Your task to perform on an android device: Show me productivity apps on the Play Store Image 0: 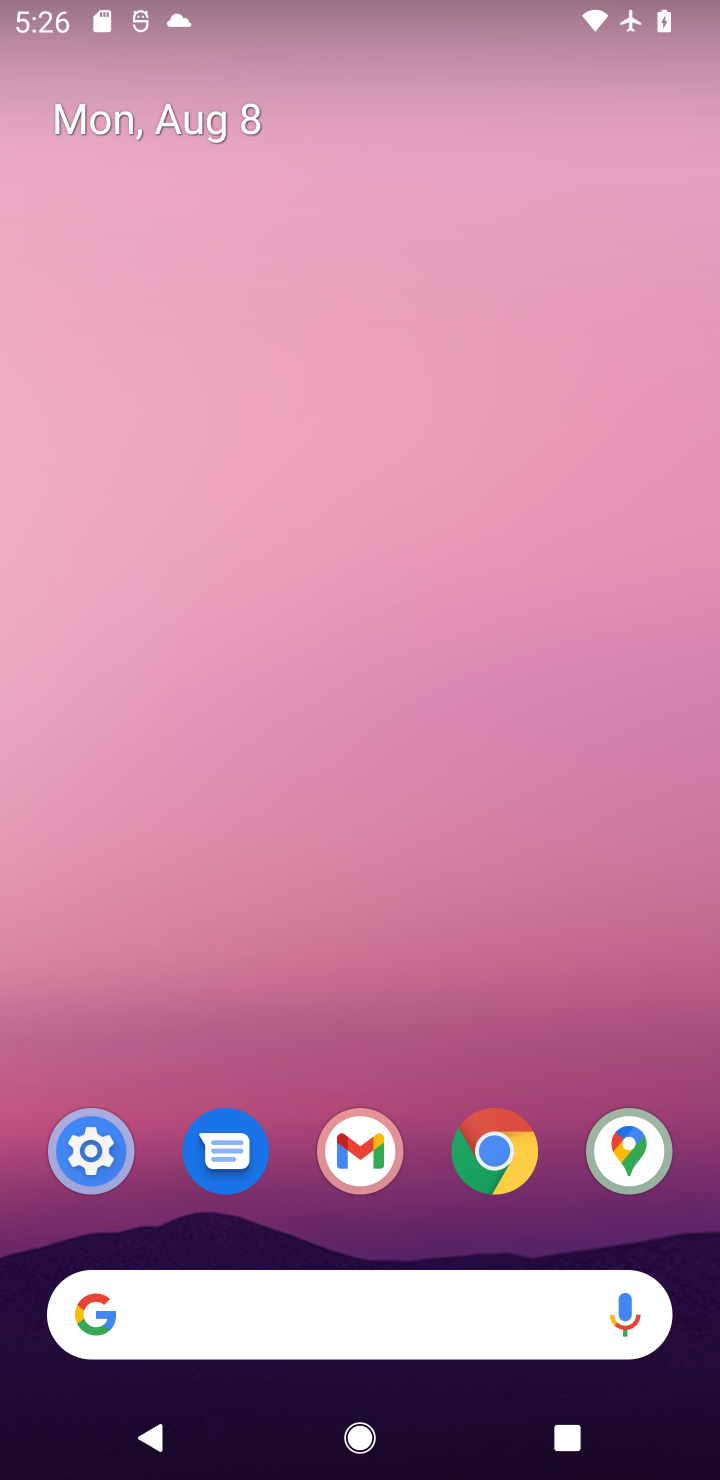
Step 0: drag from (357, 1045) to (292, 158)
Your task to perform on an android device: Show me productivity apps on the Play Store Image 1: 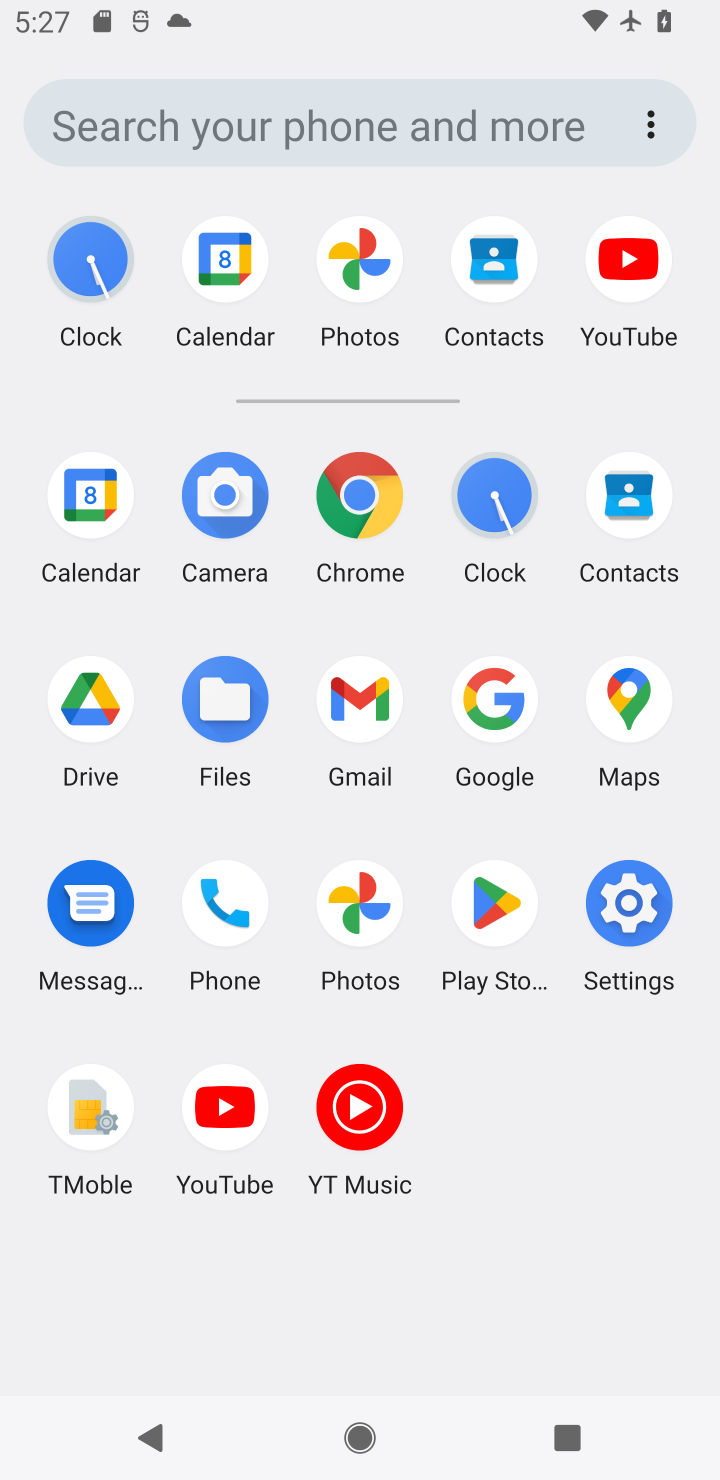
Step 1: click (508, 924)
Your task to perform on an android device: Show me productivity apps on the Play Store Image 2: 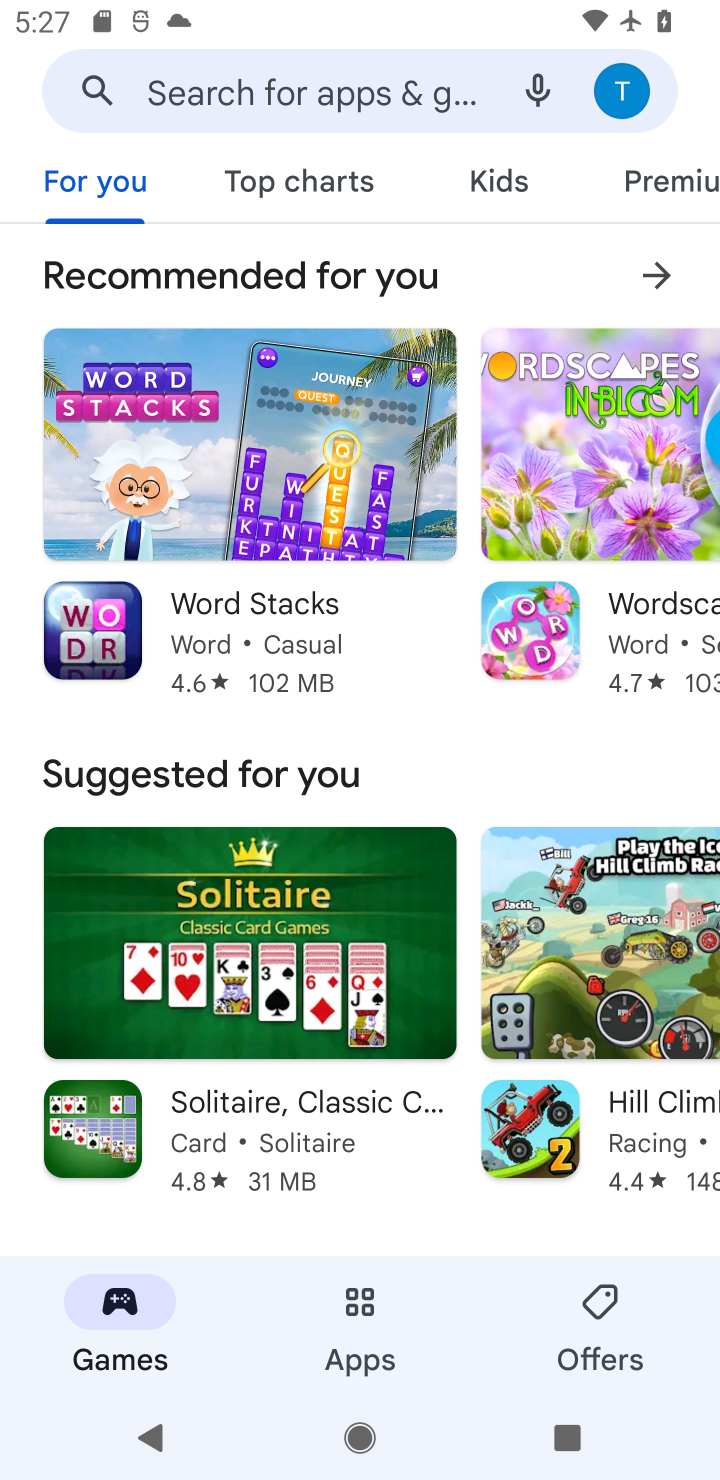
Step 2: click (333, 1326)
Your task to perform on an android device: Show me productivity apps on the Play Store Image 3: 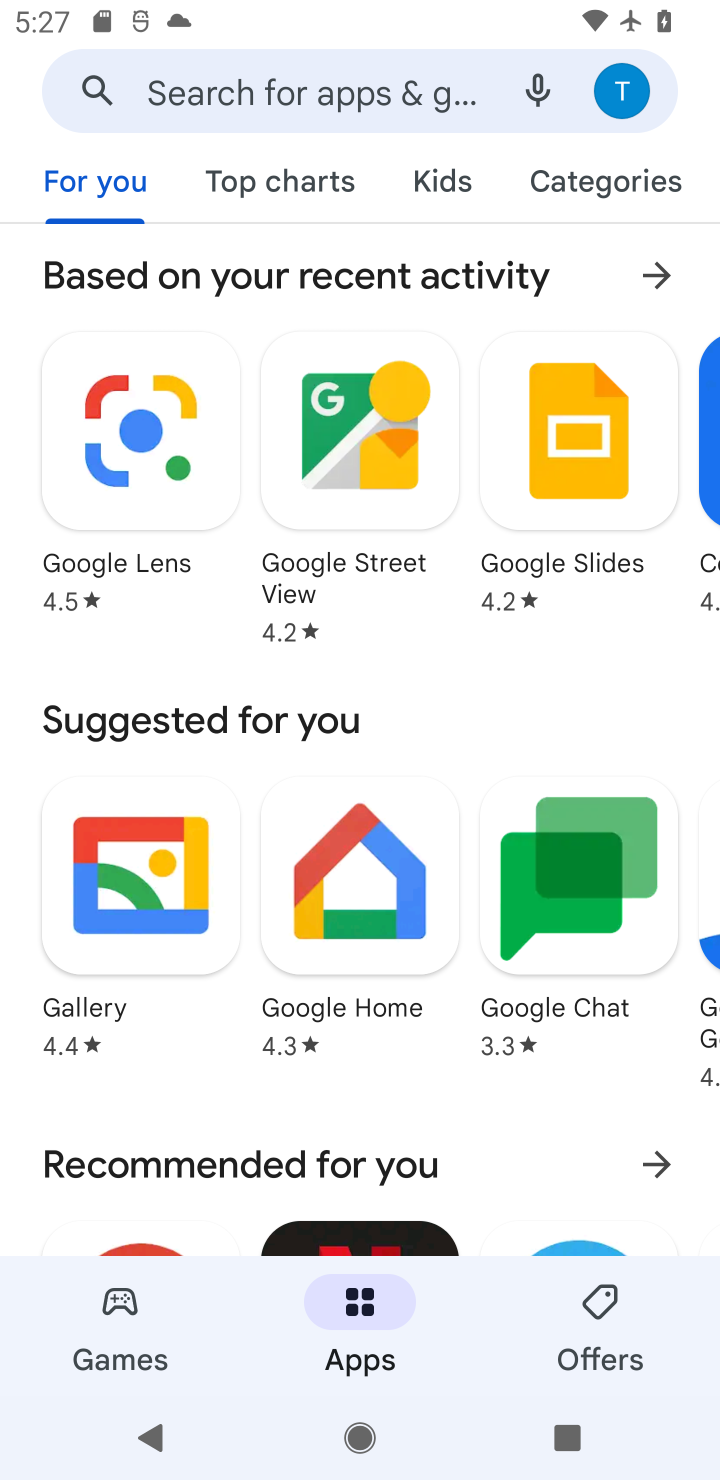
Step 3: click (573, 197)
Your task to perform on an android device: Show me productivity apps on the Play Store Image 4: 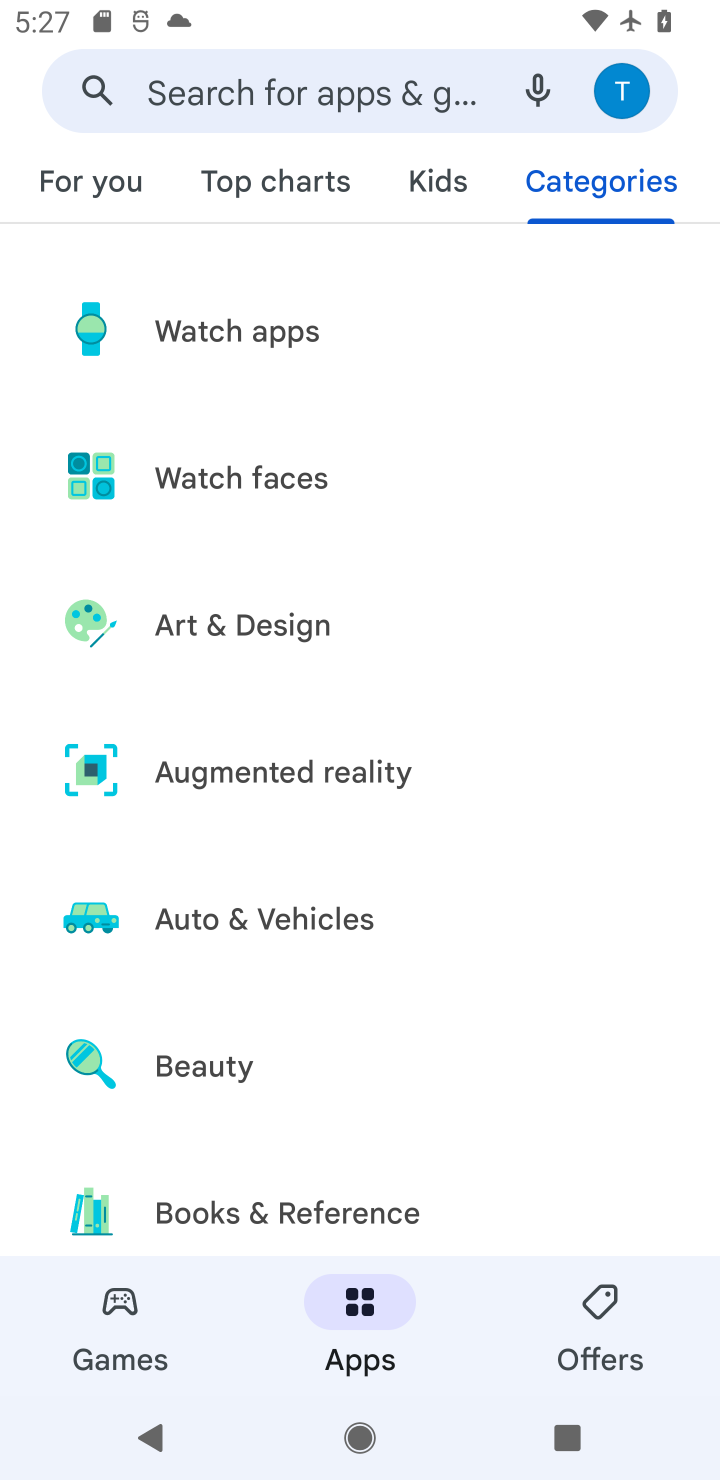
Step 4: drag from (366, 1099) to (423, 427)
Your task to perform on an android device: Show me productivity apps on the Play Store Image 5: 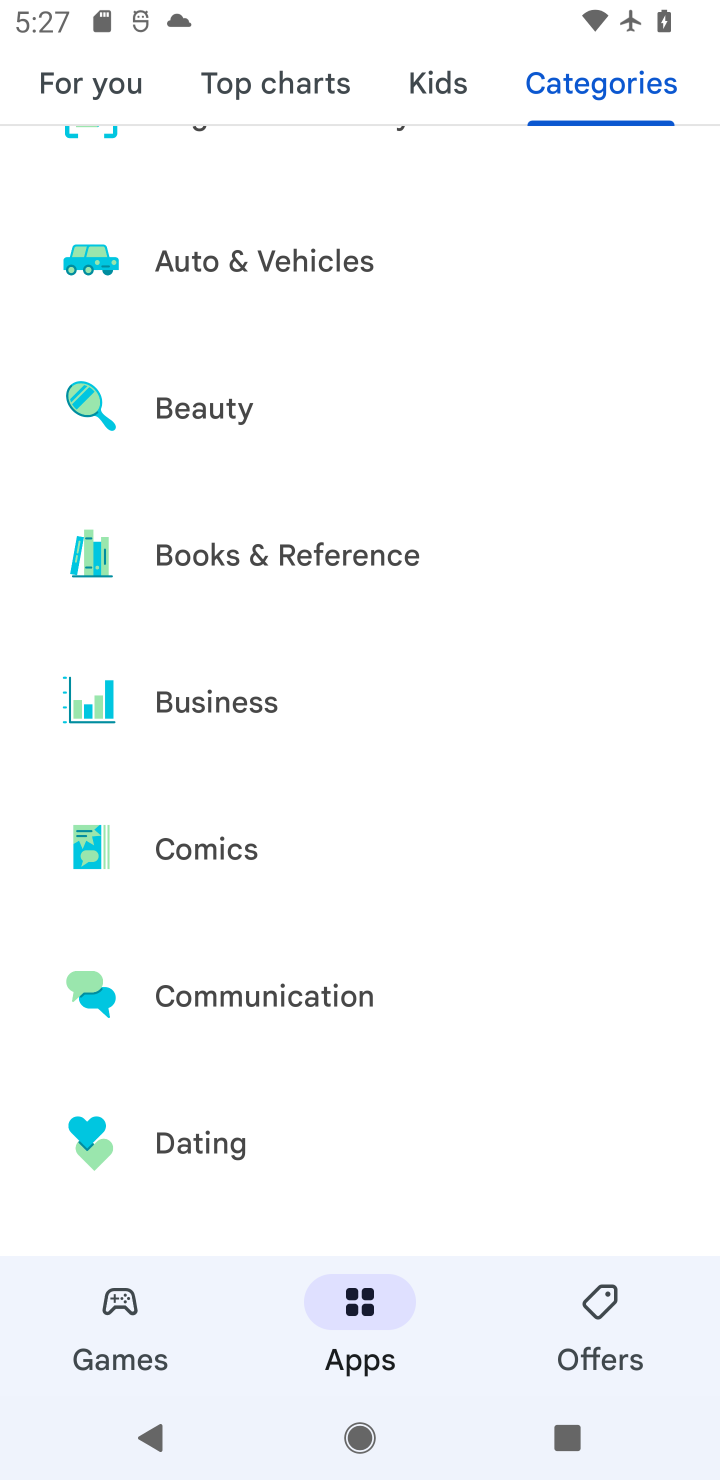
Step 5: drag from (333, 1058) to (349, 365)
Your task to perform on an android device: Show me productivity apps on the Play Store Image 6: 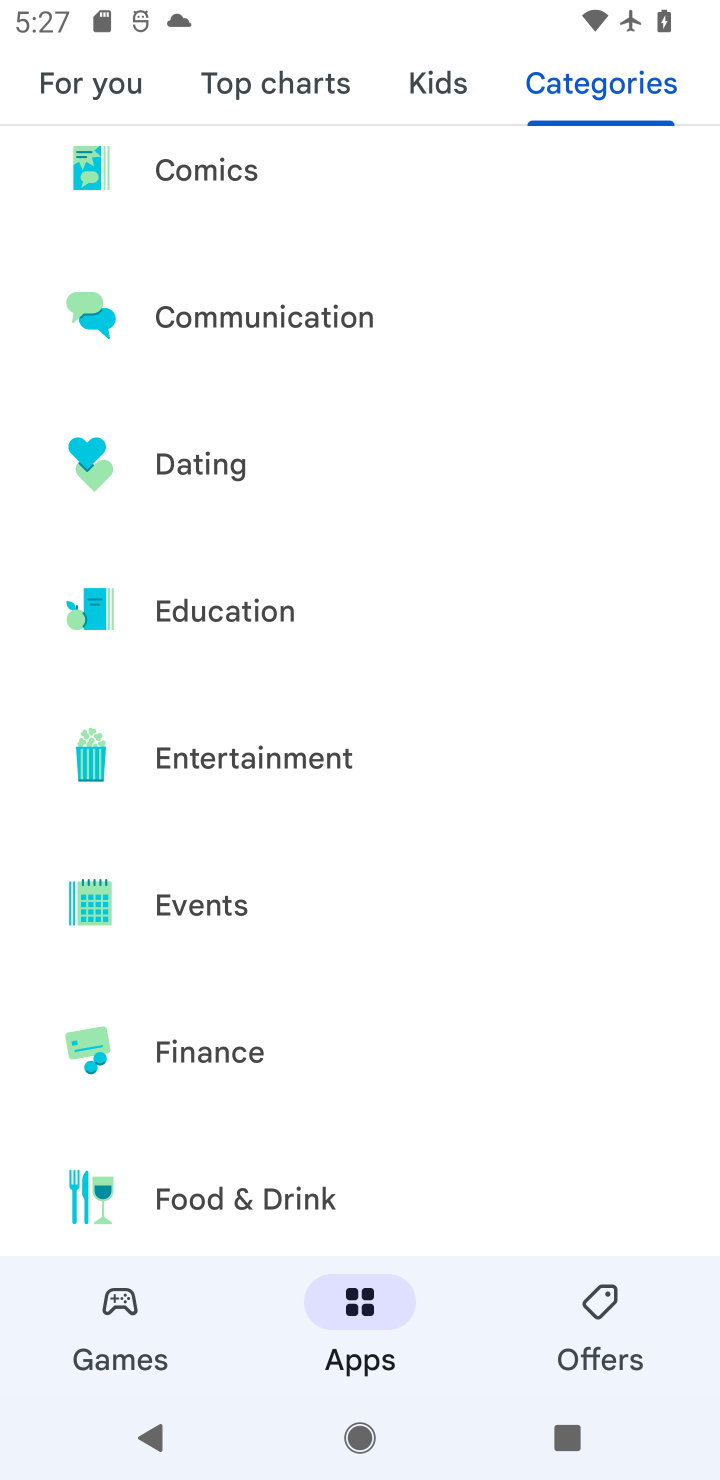
Step 6: drag from (327, 1049) to (364, 296)
Your task to perform on an android device: Show me productivity apps on the Play Store Image 7: 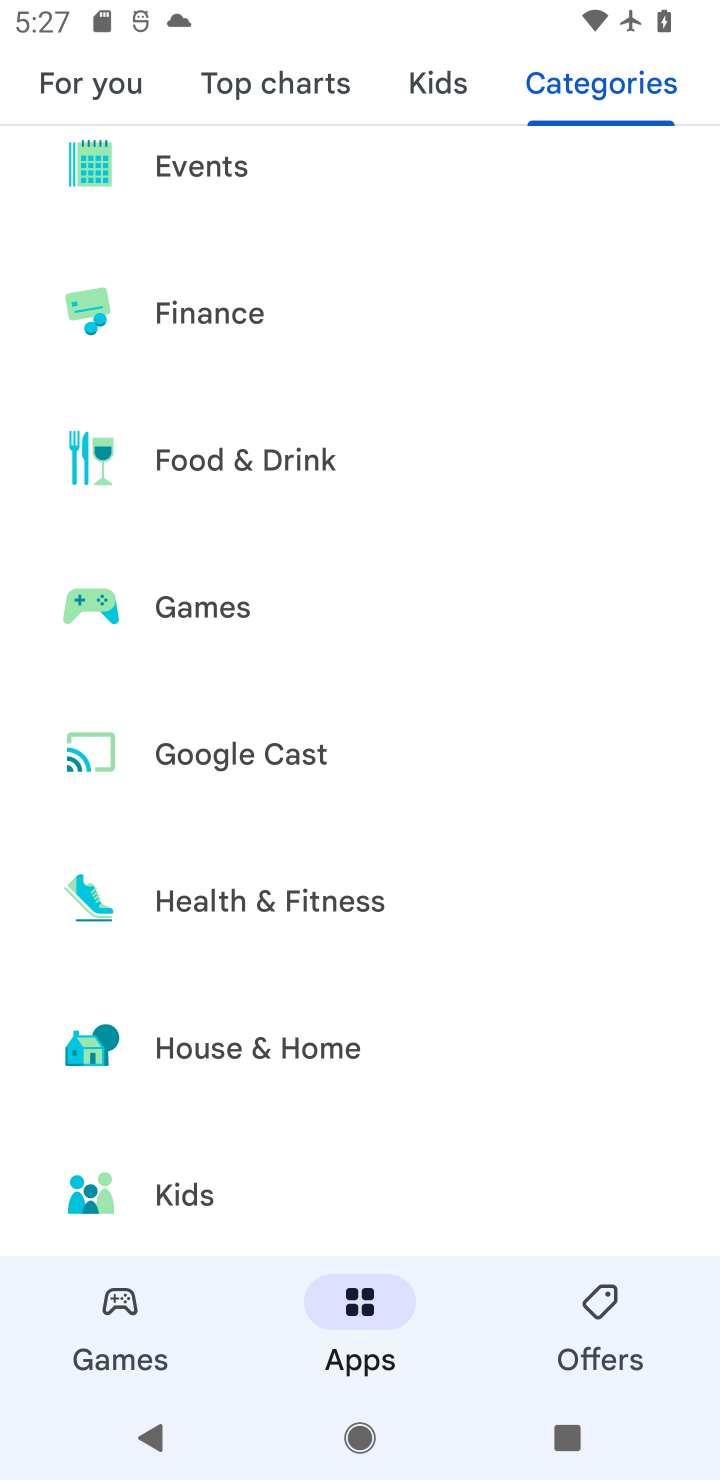
Step 7: drag from (357, 1054) to (361, 229)
Your task to perform on an android device: Show me productivity apps on the Play Store Image 8: 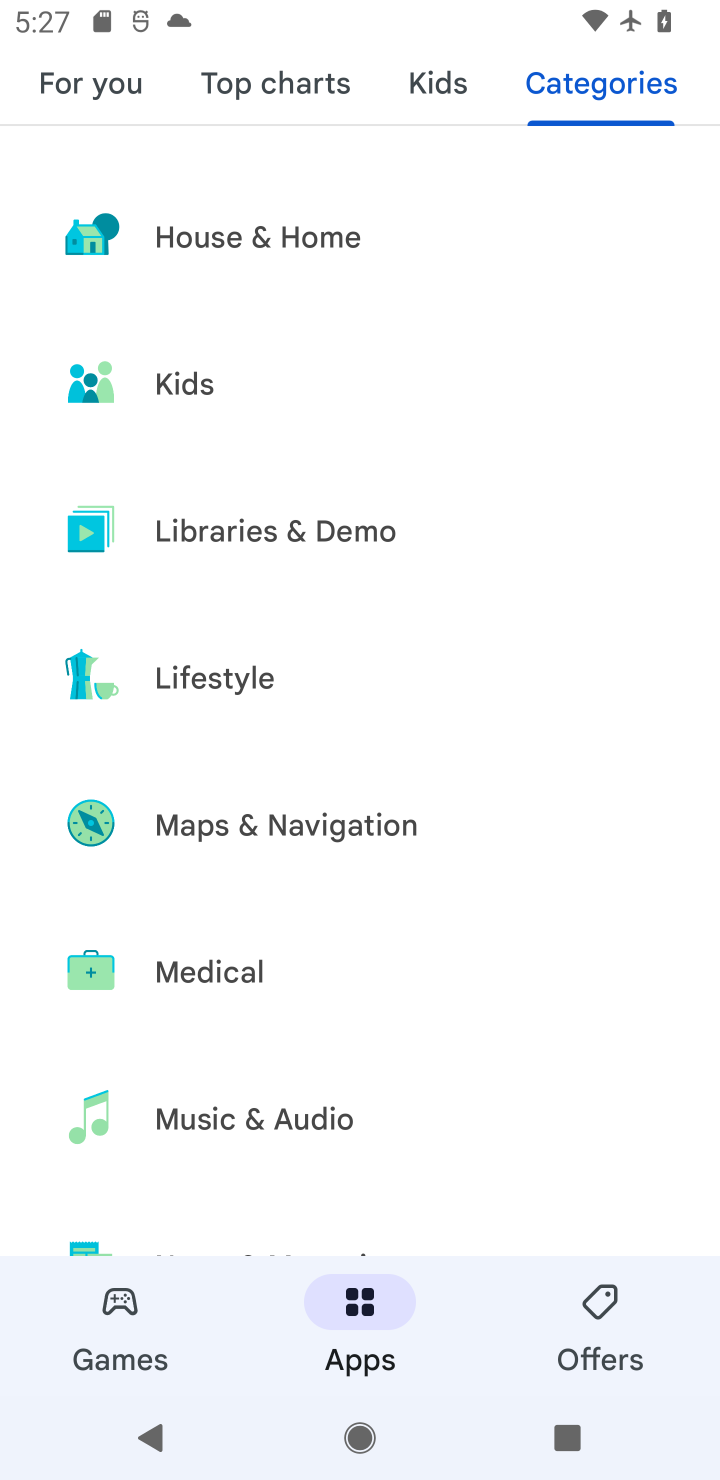
Step 8: drag from (318, 1008) to (351, 252)
Your task to perform on an android device: Show me productivity apps on the Play Store Image 9: 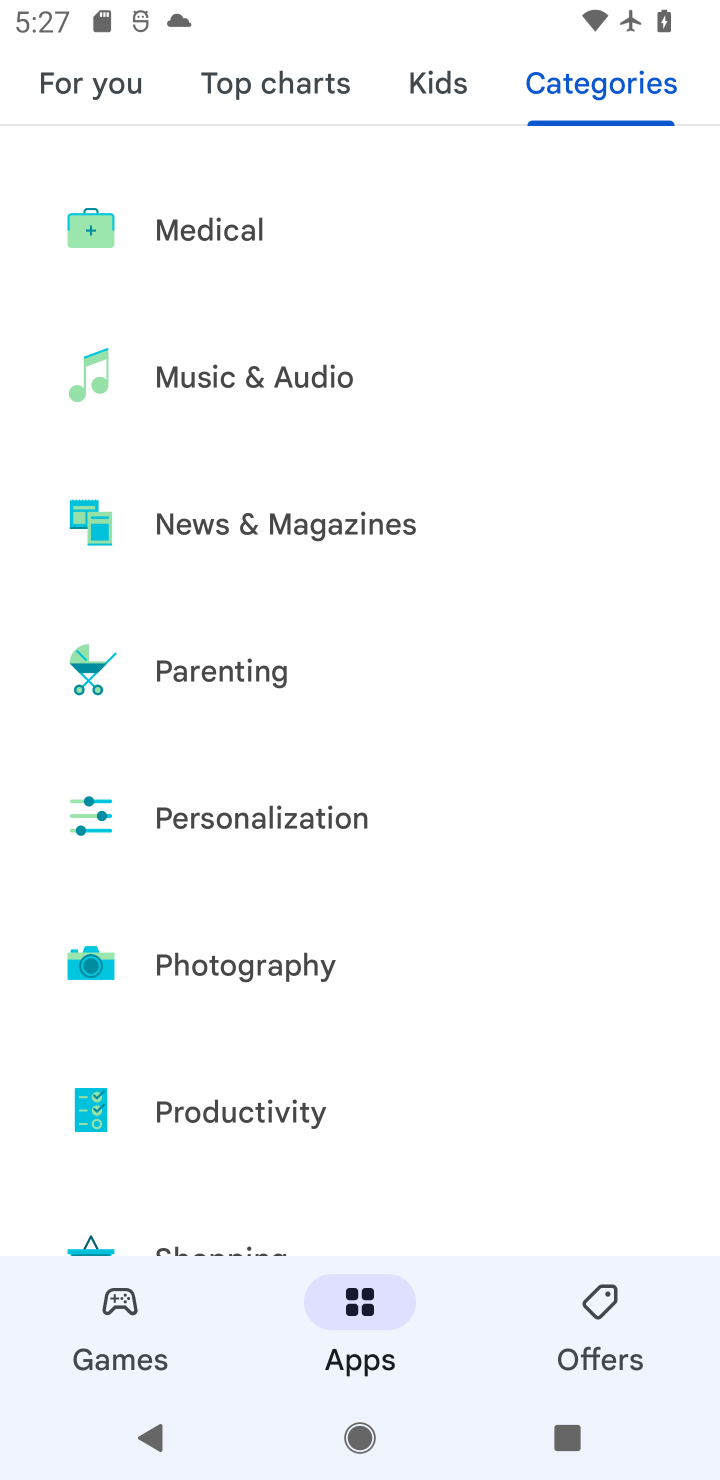
Step 9: click (306, 1104)
Your task to perform on an android device: Show me productivity apps on the Play Store Image 10: 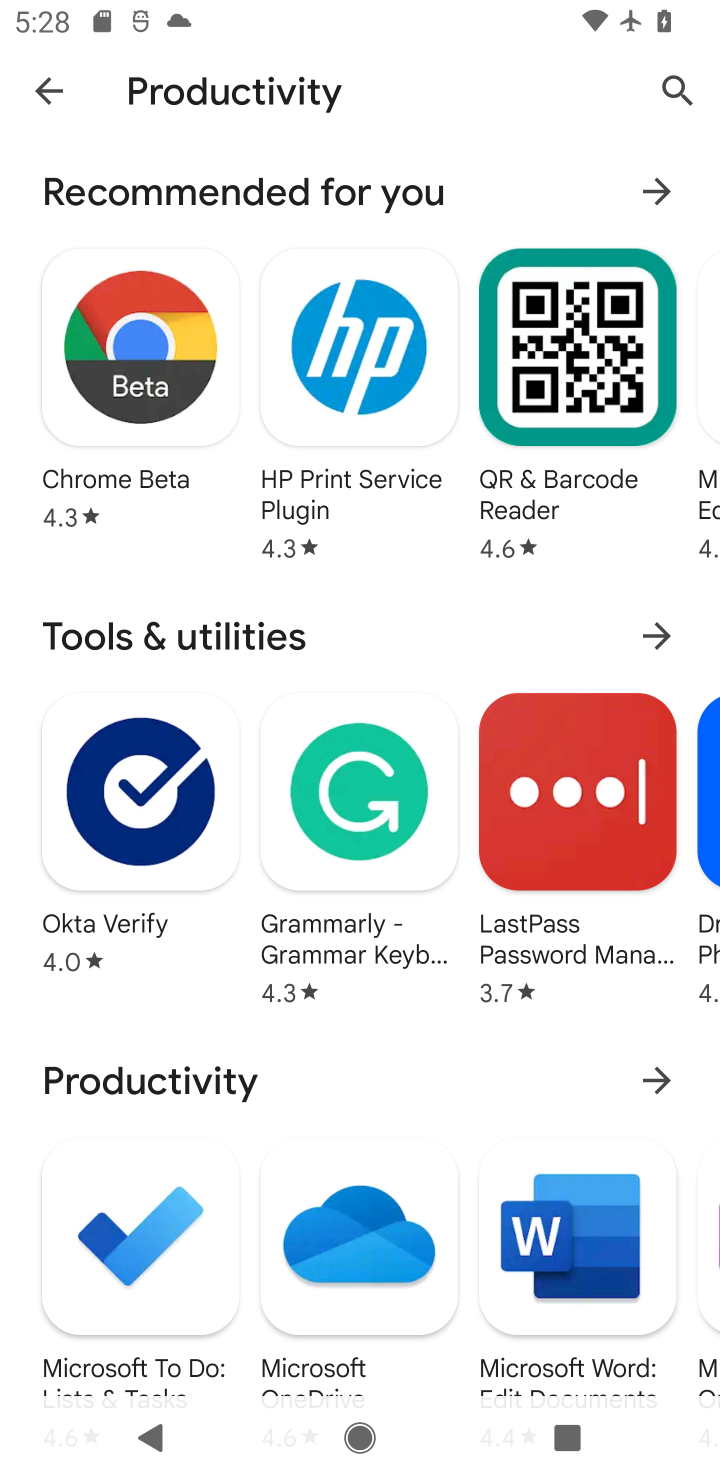
Step 10: task complete